Your task to perform on an android device: turn off sleep mode Image 0: 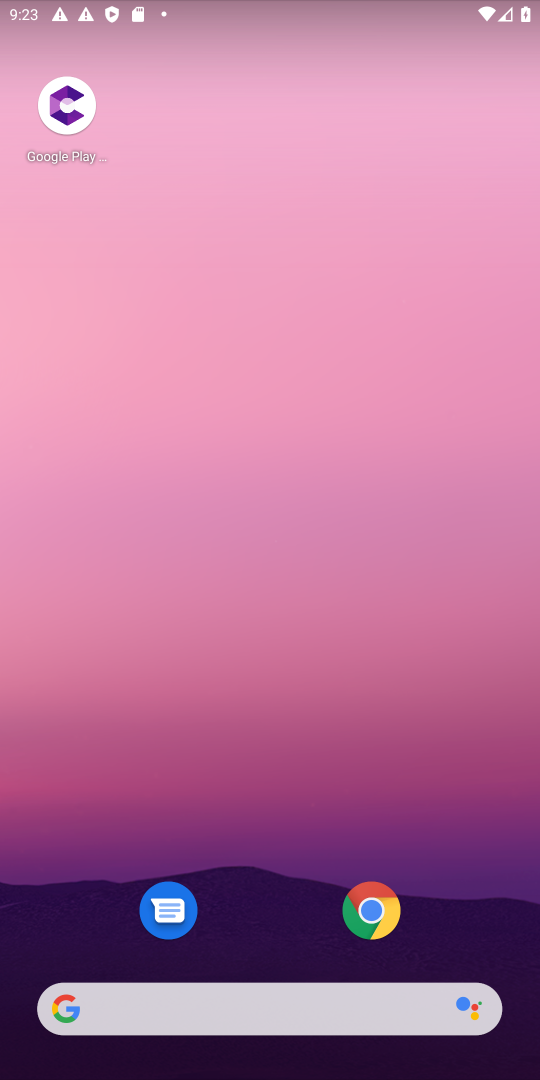
Step 0: drag from (225, 11) to (295, 594)
Your task to perform on an android device: turn off sleep mode Image 1: 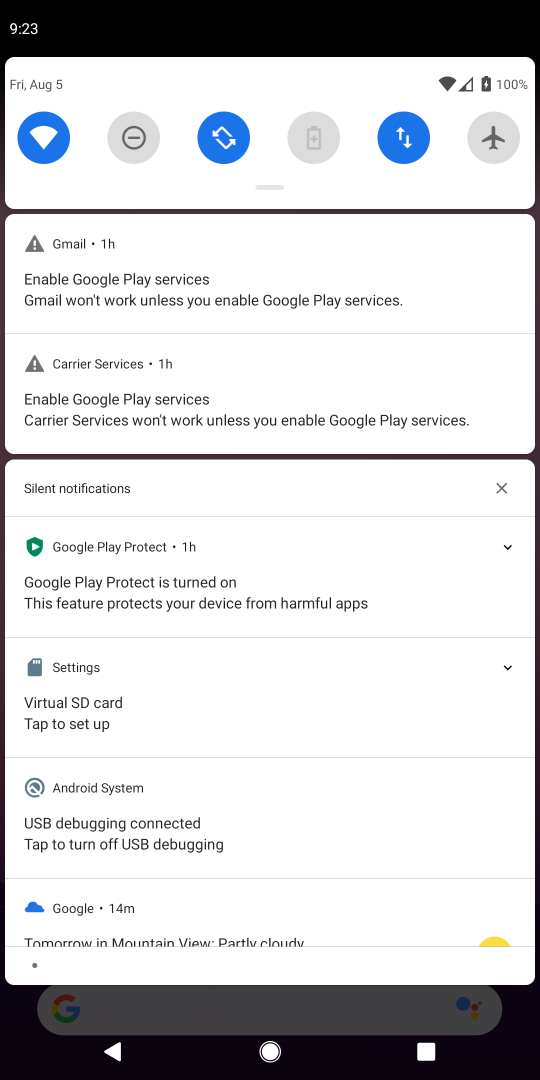
Step 1: task complete